Your task to perform on an android device: toggle improve location accuracy Image 0: 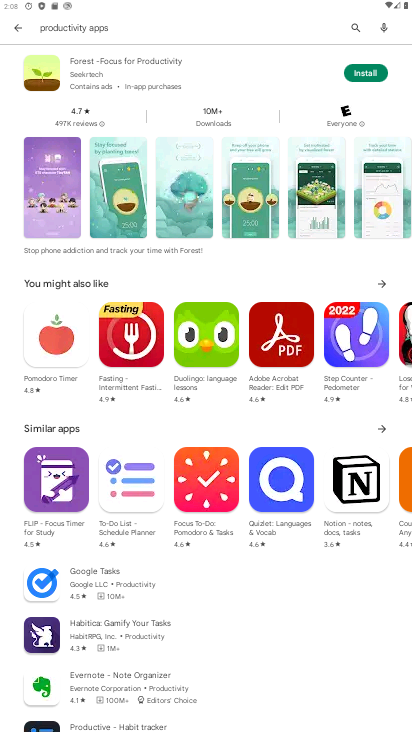
Step 0: press home button
Your task to perform on an android device: toggle improve location accuracy Image 1: 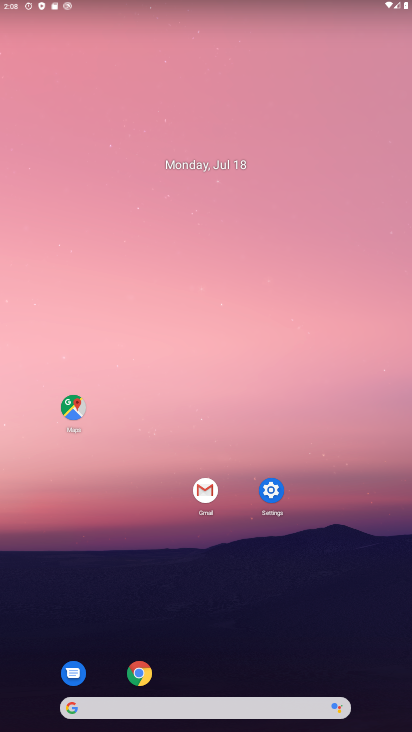
Step 1: click (272, 490)
Your task to perform on an android device: toggle improve location accuracy Image 2: 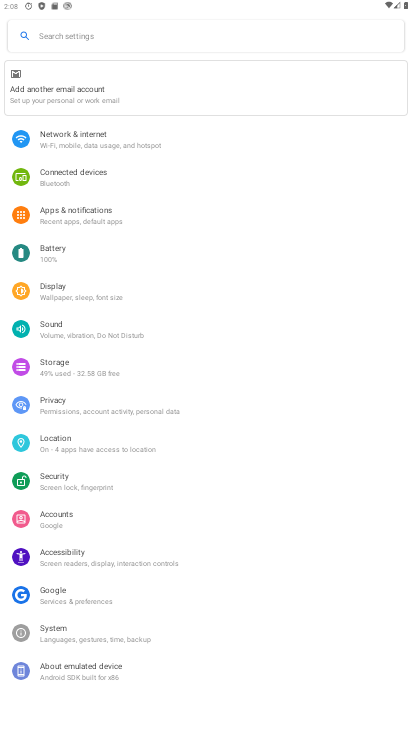
Step 2: click (75, 437)
Your task to perform on an android device: toggle improve location accuracy Image 3: 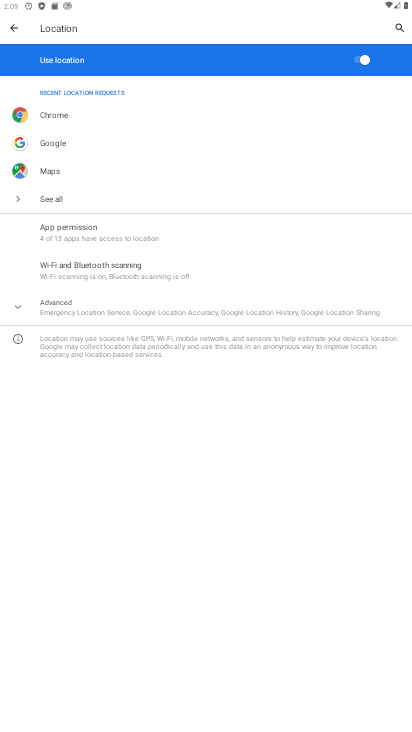
Step 3: click (44, 306)
Your task to perform on an android device: toggle improve location accuracy Image 4: 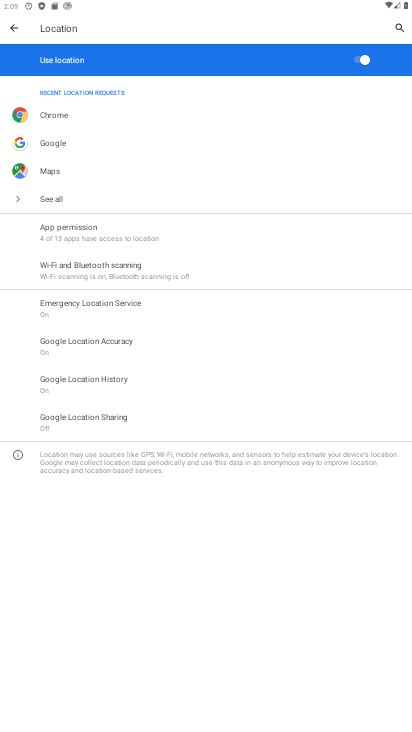
Step 4: click (123, 336)
Your task to perform on an android device: toggle improve location accuracy Image 5: 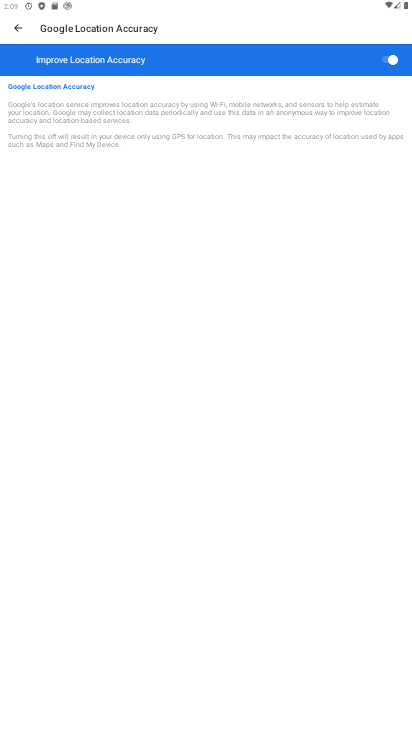
Step 5: task complete